Your task to perform on an android device: Open calendar and show me the third week of next month Image 0: 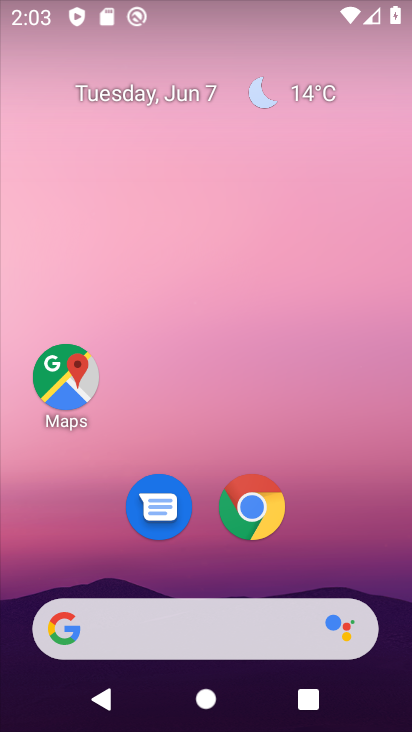
Step 0: drag from (315, 432) to (277, 6)
Your task to perform on an android device: Open calendar and show me the third week of next month Image 1: 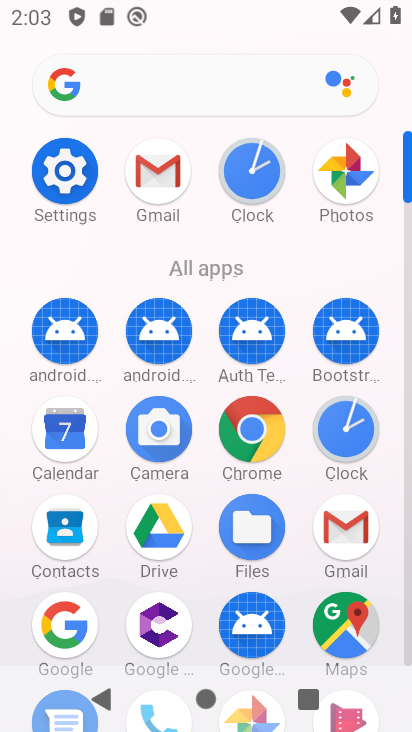
Step 1: click (64, 436)
Your task to perform on an android device: Open calendar and show me the third week of next month Image 2: 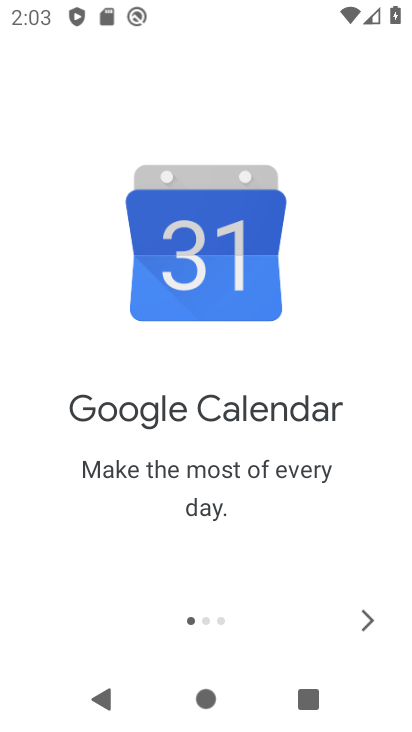
Step 2: click (360, 623)
Your task to perform on an android device: Open calendar and show me the third week of next month Image 3: 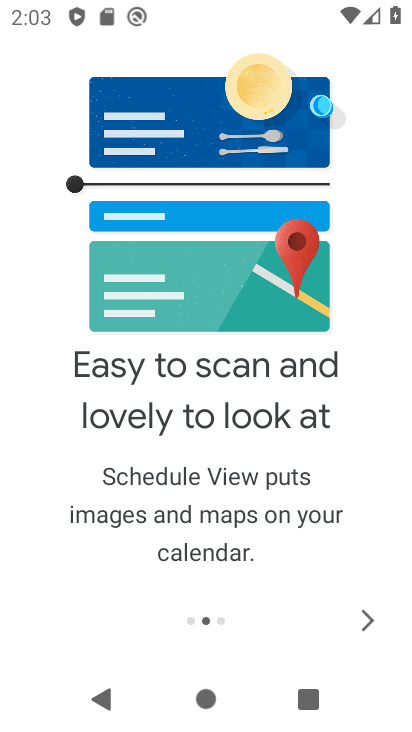
Step 3: click (359, 620)
Your task to perform on an android device: Open calendar and show me the third week of next month Image 4: 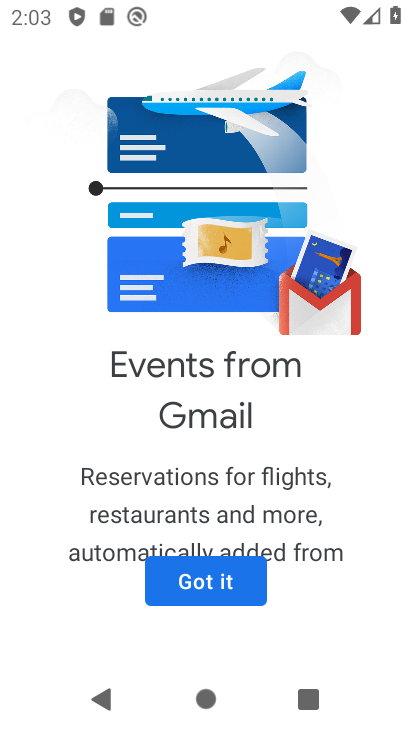
Step 4: click (196, 578)
Your task to perform on an android device: Open calendar and show me the third week of next month Image 5: 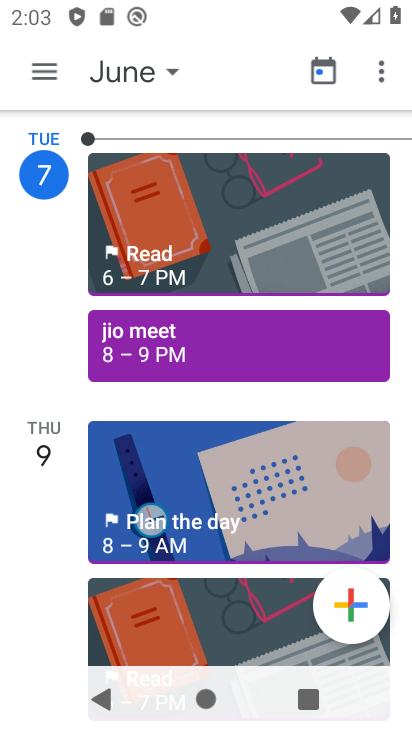
Step 5: click (144, 70)
Your task to perform on an android device: Open calendar and show me the third week of next month Image 6: 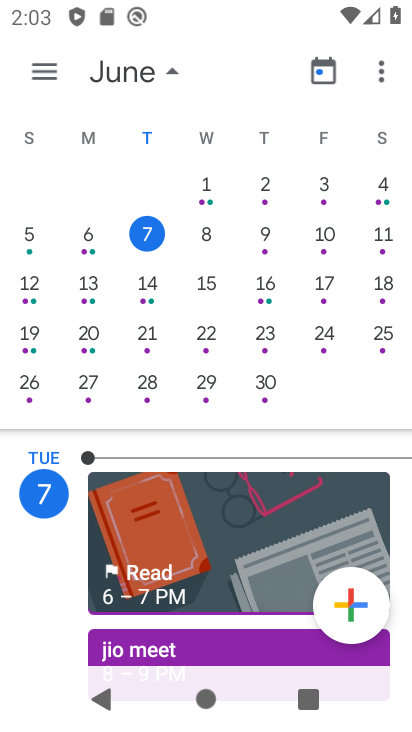
Step 6: drag from (358, 319) to (71, 279)
Your task to perform on an android device: Open calendar and show me the third week of next month Image 7: 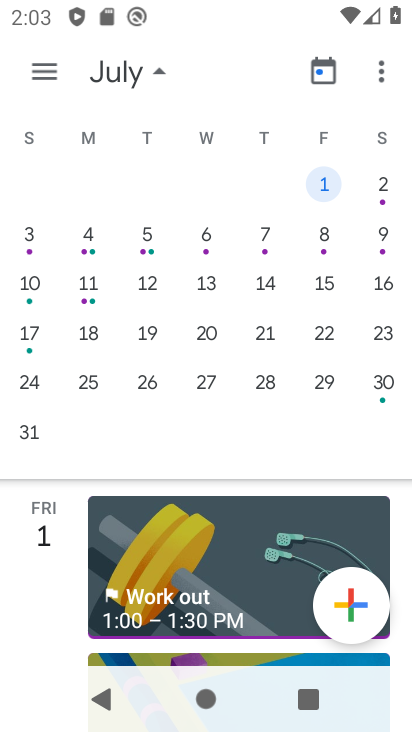
Step 7: click (28, 328)
Your task to perform on an android device: Open calendar and show me the third week of next month Image 8: 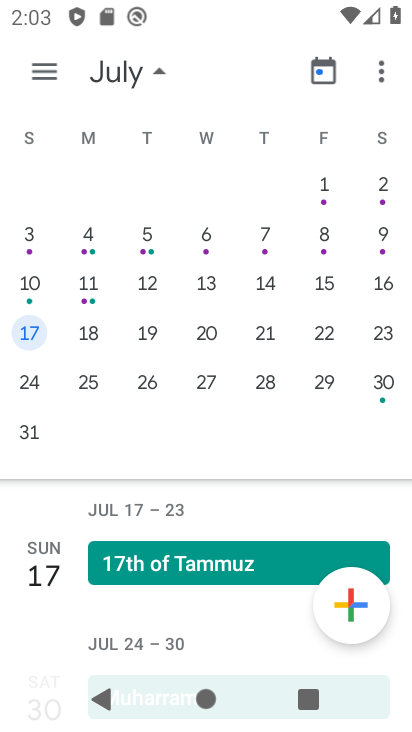
Step 8: click (35, 56)
Your task to perform on an android device: Open calendar and show me the third week of next month Image 9: 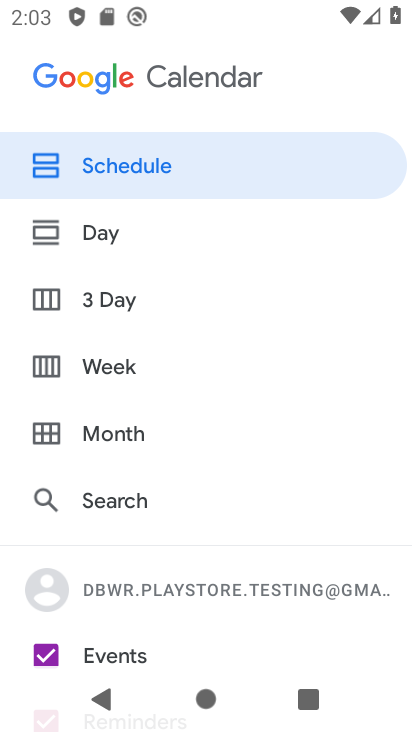
Step 9: click (100, 369)
Your task to perform on an android device: Open calendar and show me the third week of next month Image 10: 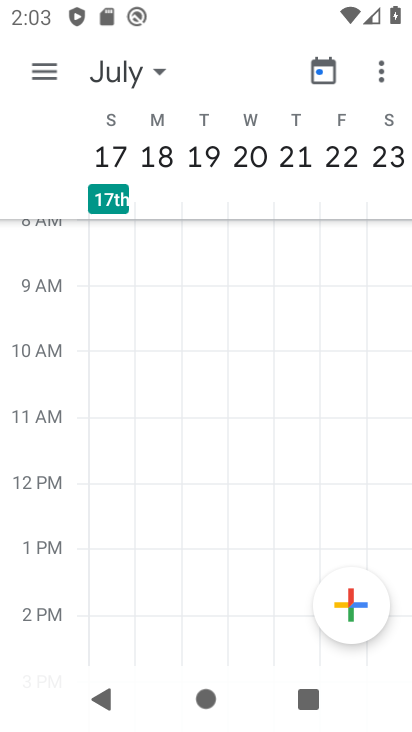
Step 10: task complete